Your task to perform on an android device: Open privacy settings Image 0: 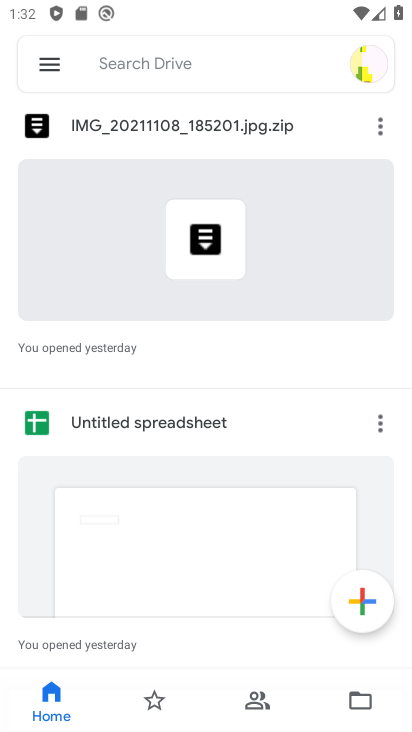
Step 0: press back button
Your task to perform on an android device: Open privacy settings Image 1: 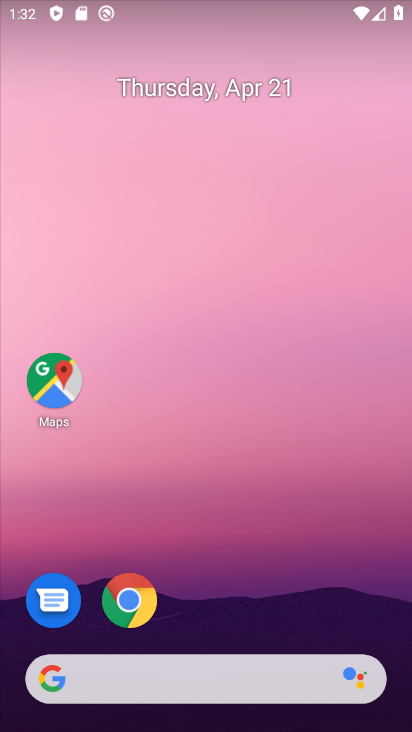
Step 1: click (142, 601)
Your task to perform on an android device: Open privacy settings Image 2: 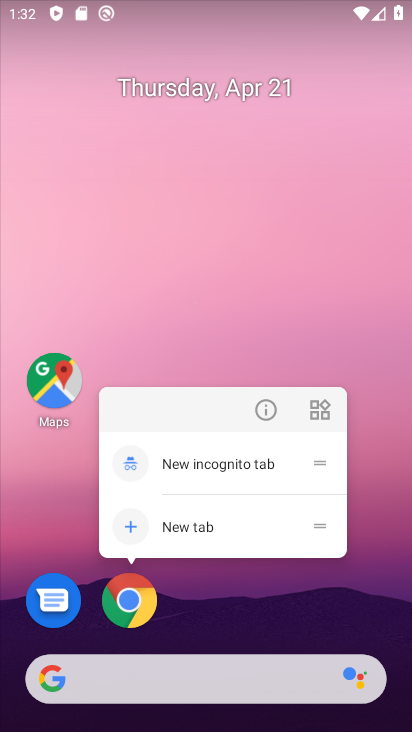
Step 2: press back button
Your task to perform on an android device: Open privacy settings Image 3: 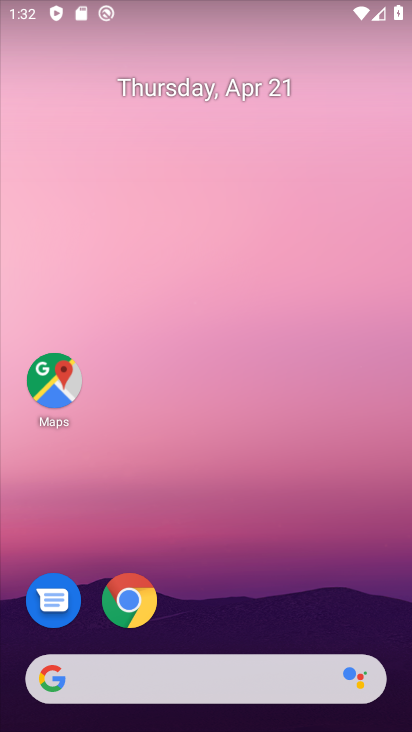
Step 3: drag from (217, 527) to (325, 3)
Your task to perform on an android device: Open privacy settings Image 4: 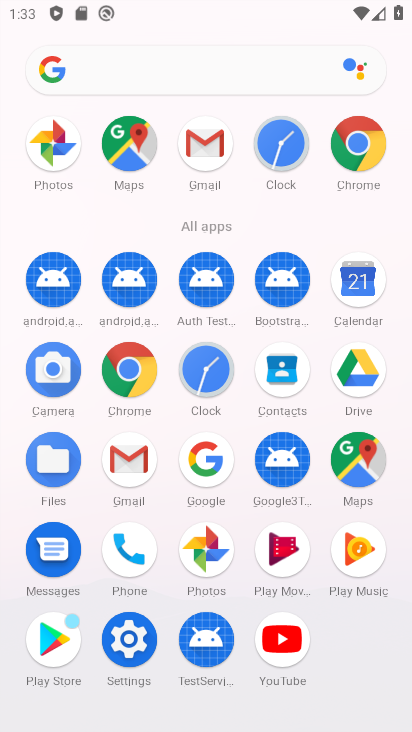
Step 4: click (354, 153)
Your task to perform on an android device: Open privacy settings Image 5: 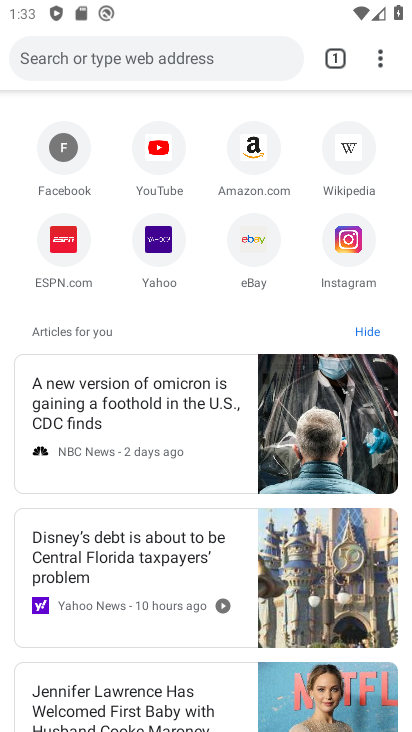
Step 5: click (381, 56)
Your task to perform on an android device: Open privacy settings Image 6: 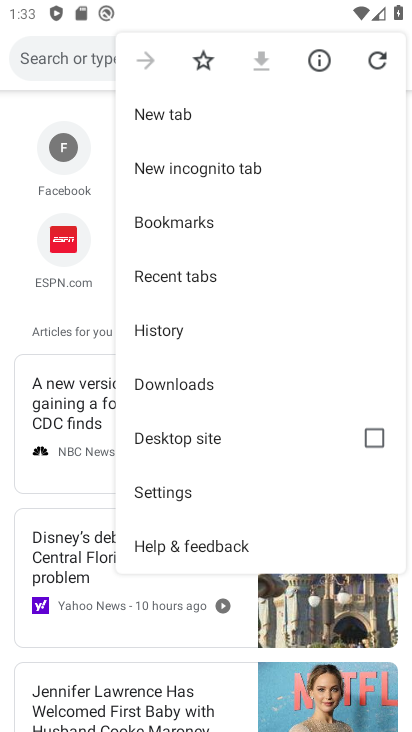
Step 6: click (180, 491)
Your task to perform on an android device: Open privacy settings Image 7: 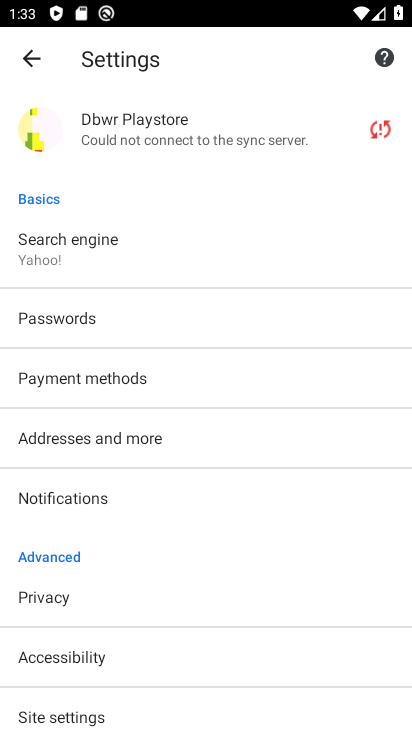
Step 7: click (77, 602)
Your task to perform on an android device: Open privacy settings Image 8: 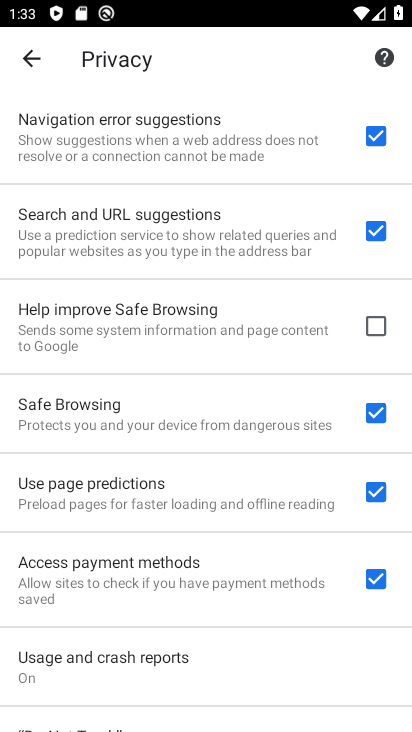
Step 8: task complete